Your task to perform on an android device: change text size in settings app Image 0: 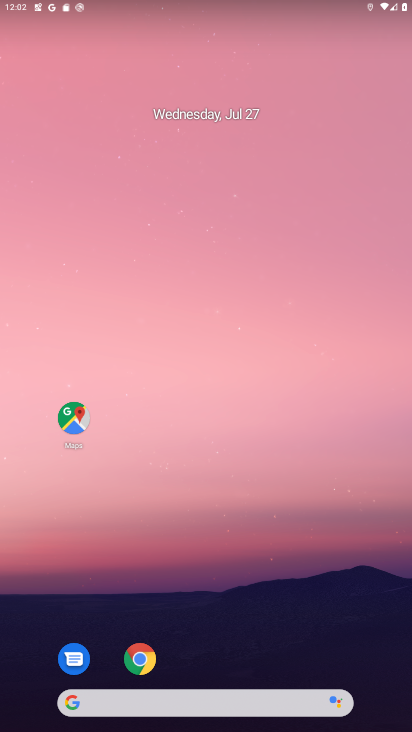
Step 0: drag from (211, 621) to (401, 677)
Your task to perform on an android device: change text size in settings app Image 1: 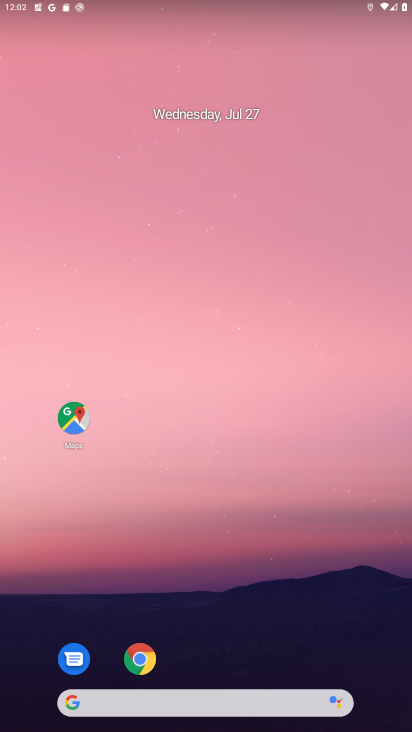
Step 1: drag from (257, 651) to (246, 82)
Your task to perform on an android device: change text size in settings app Image 2: 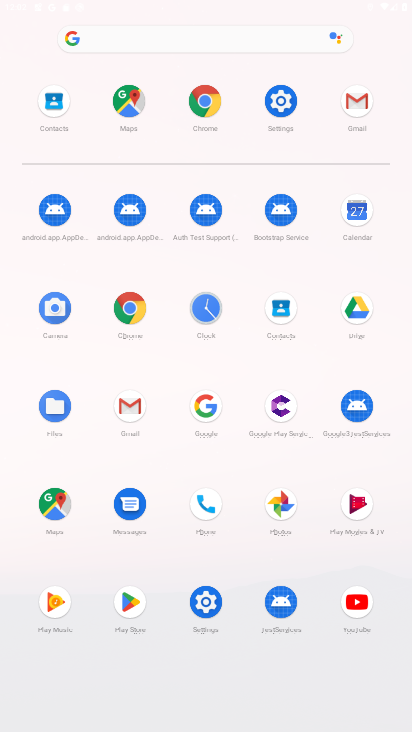
Step 2: click (198, 603)
Your task to perform on an android device: change text size in settings app Image 3: 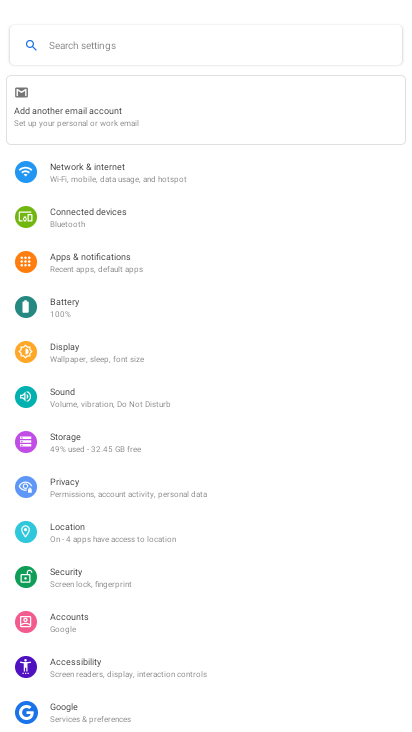
Step 3: drag from (94, 664) to (125, 200)
Your task to perform on an android device: change text size in settings app Image 4: 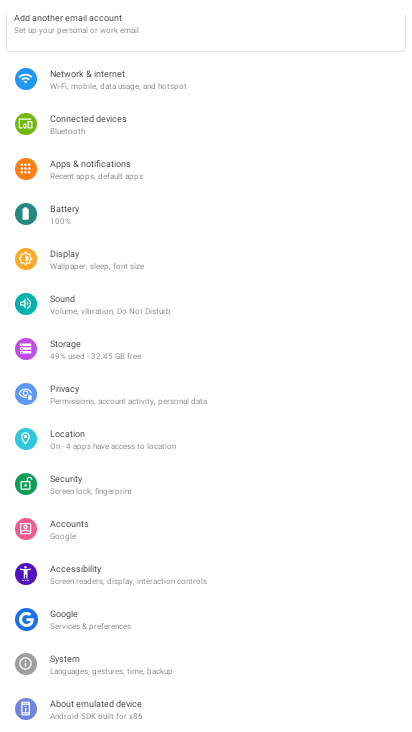
Step 4: click (138, 570)
Your task to perform on an android device: change text size in settings app Image 5: 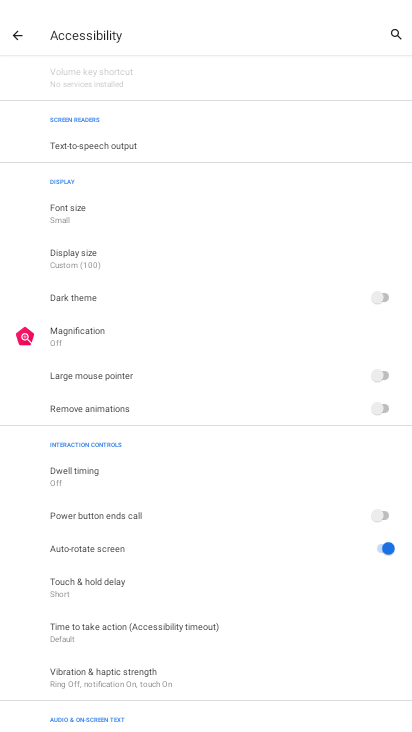
Step 5: click (87, 219)
Your task to perform on an android device: change text size in settings app Image 6: 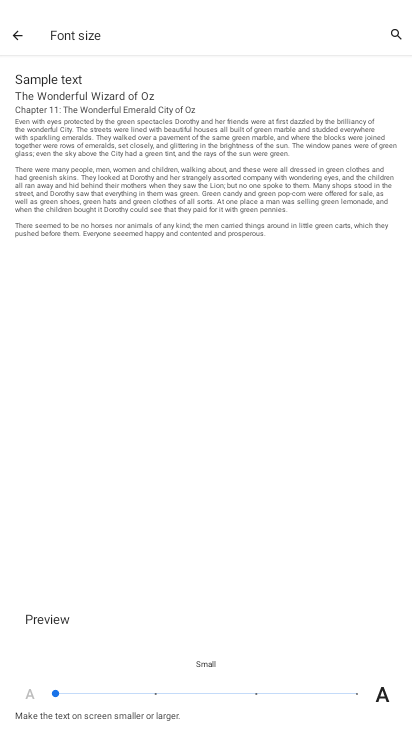
Step 6: click (149, 696)
Your task to perform on an android device: change text size in settings app Image 7: 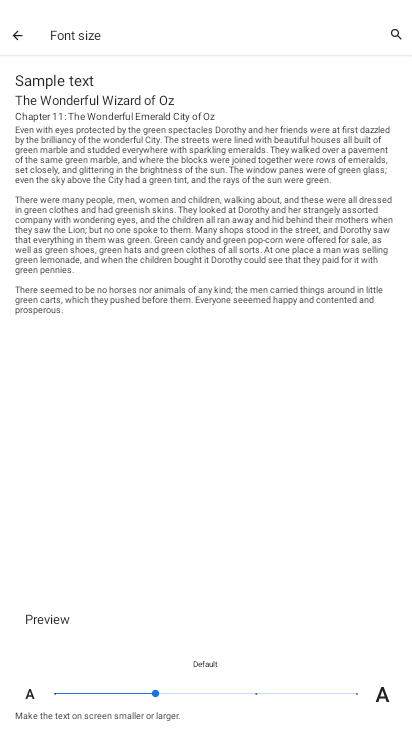
Step 7: click (248, 693)
Your task to perform on an android device: change text size in settings app Image 8: 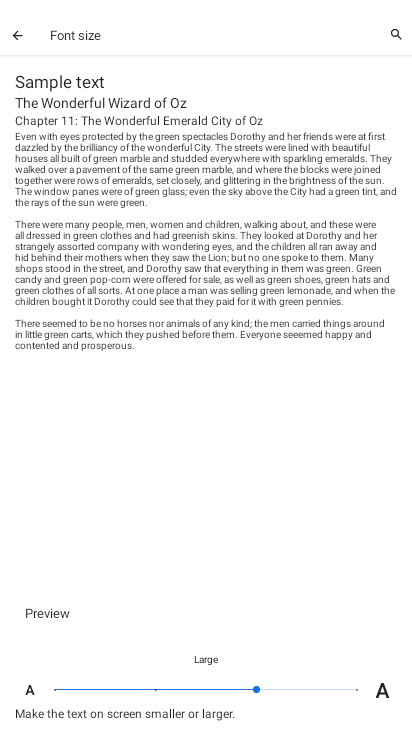
Step 8: task complete